Your task to perform on an android device: Open the Play Movies app and select the watchlist tab. Image 0: 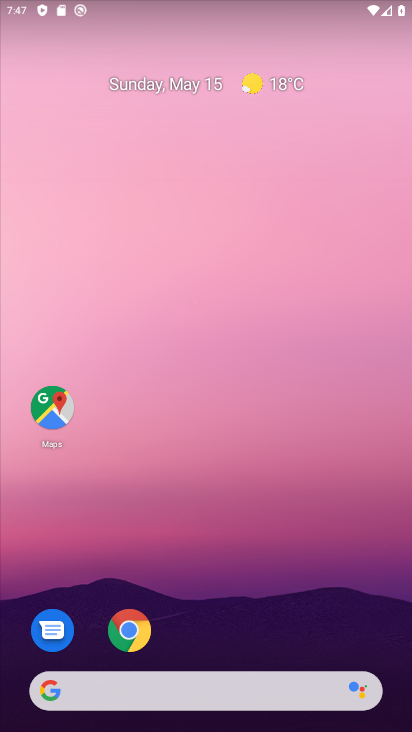
Step 0: drag from (260, 415) to (320, 162)
Your task to perform on an android device: Open the Play Movies app and select the watchlist tab. Image 1: 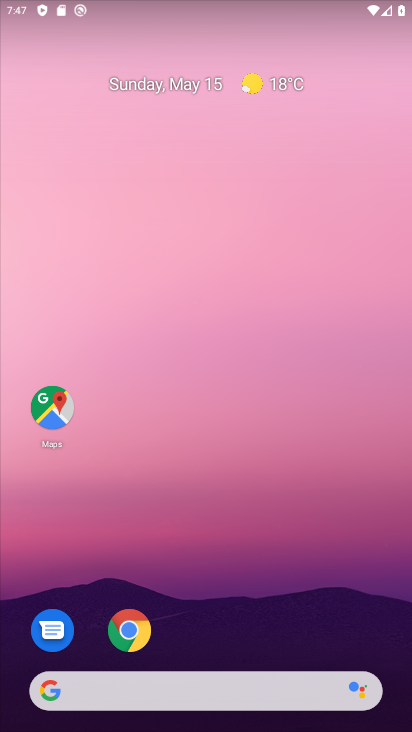
Step 1: drag from (245, 554) to (279, 151)
Your task to perform on an android device: Open the Play Movies app and select the watchlist tab. Image 2: 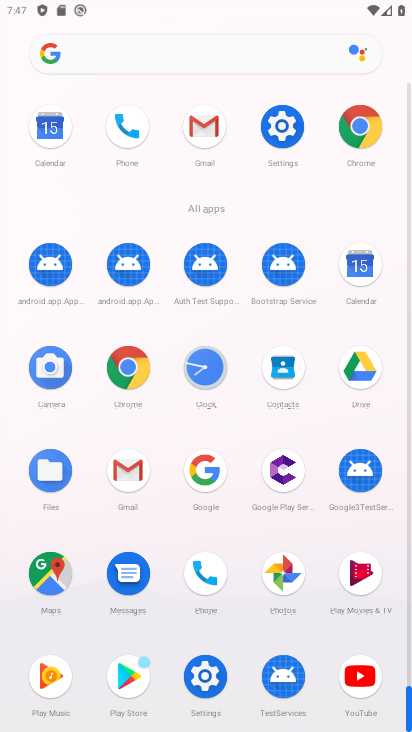
Step 2: click (346, 570)
Your task to perform on an android device: Open the Play Movies app and select the watchlist tab. Image 3: 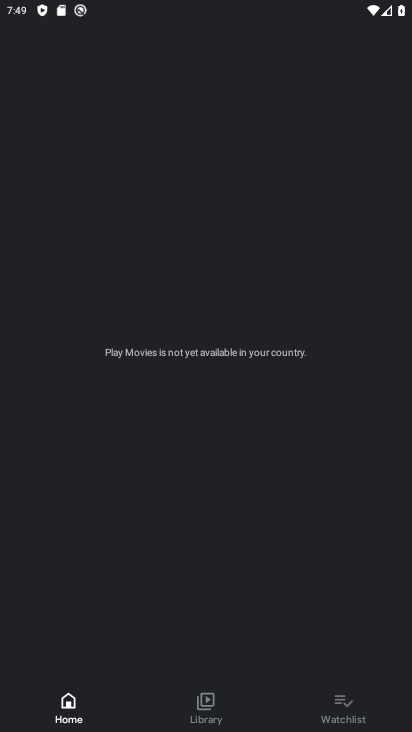
Step 3: drag from (226, 652) to (262, 503)
Your task to perform on an android device: Open the Play Movies app and select the watchlist tab. Image 4: 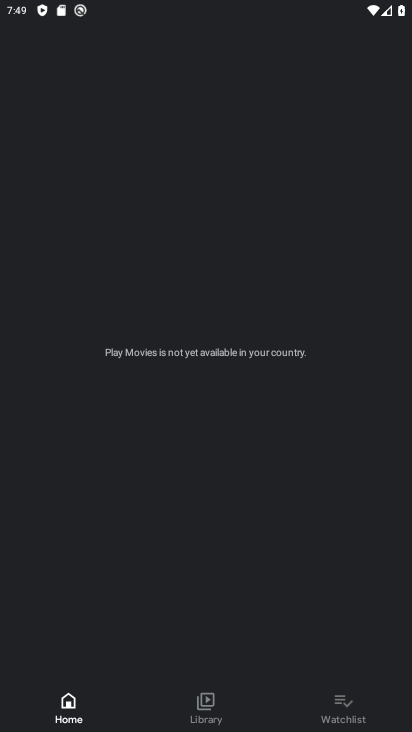
Step 4: click (357, 688)
Your task to perform on an android device: Open the Play Movies app and select the watchlist tab. Image 5: 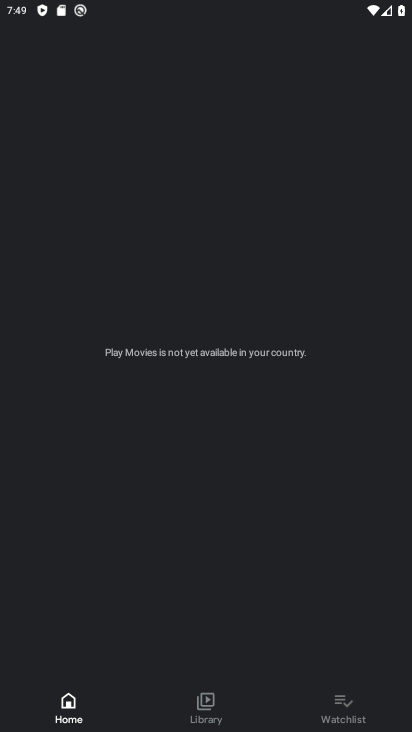
Step 5: click (330, 711)
Your task to perform on an android device: Open the Play Movies app and select the watchlist tab. Image 6: 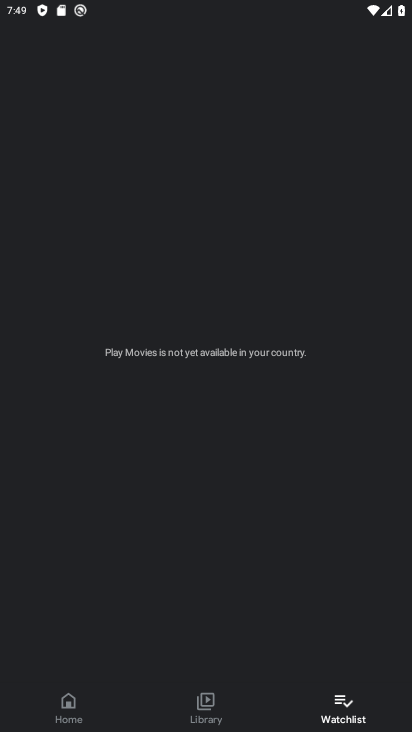
Step 6: task complete